Your task to perform on an android device: open app "NewsBreak: Local News & Alerts" Image 0: 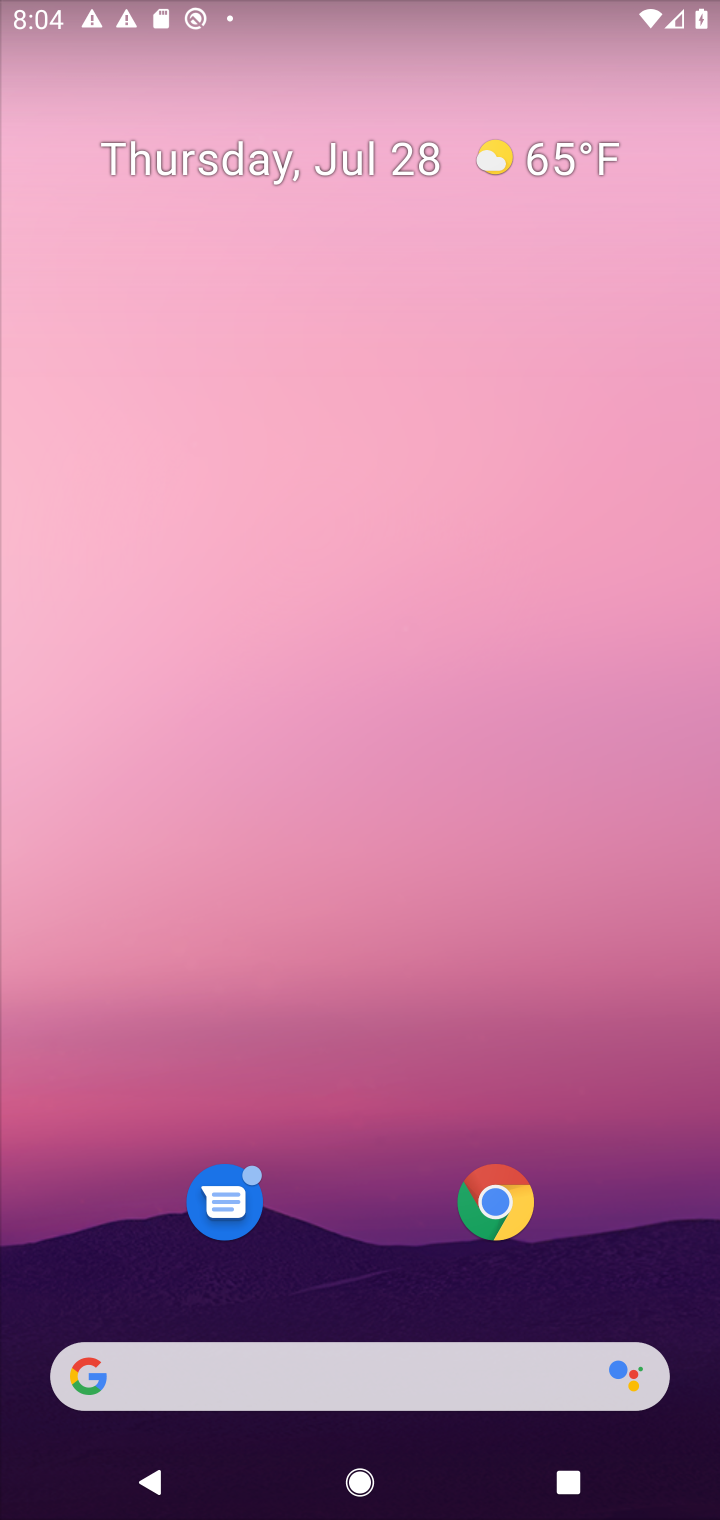
Step 0: click (449, 113)
Your task to perform on an android device: open app "NewsBreak: Local News & Alerts" Image 1: 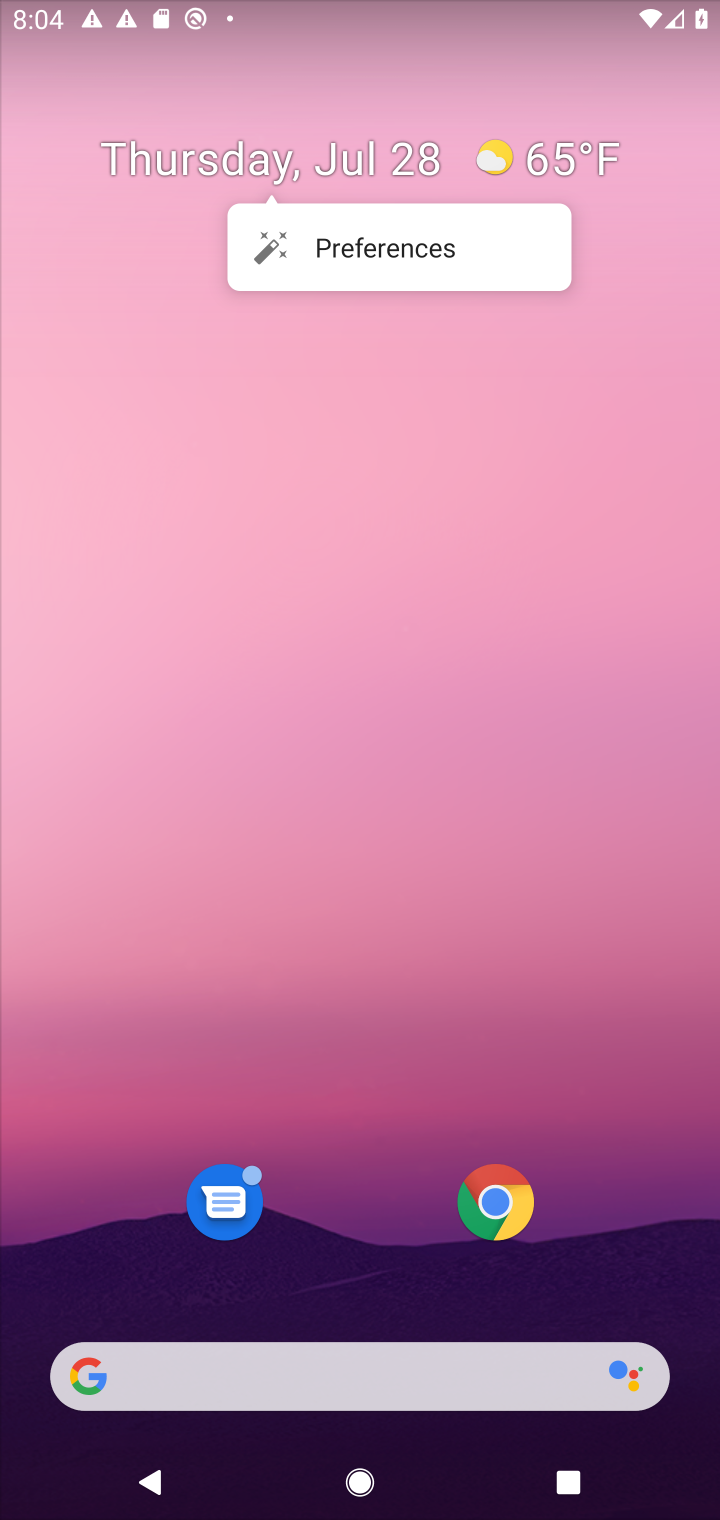
Step 1: click (360, 1017)
Your task to perform on an android device: open app "NewsBreak: Local News & Alerts" Image 2: 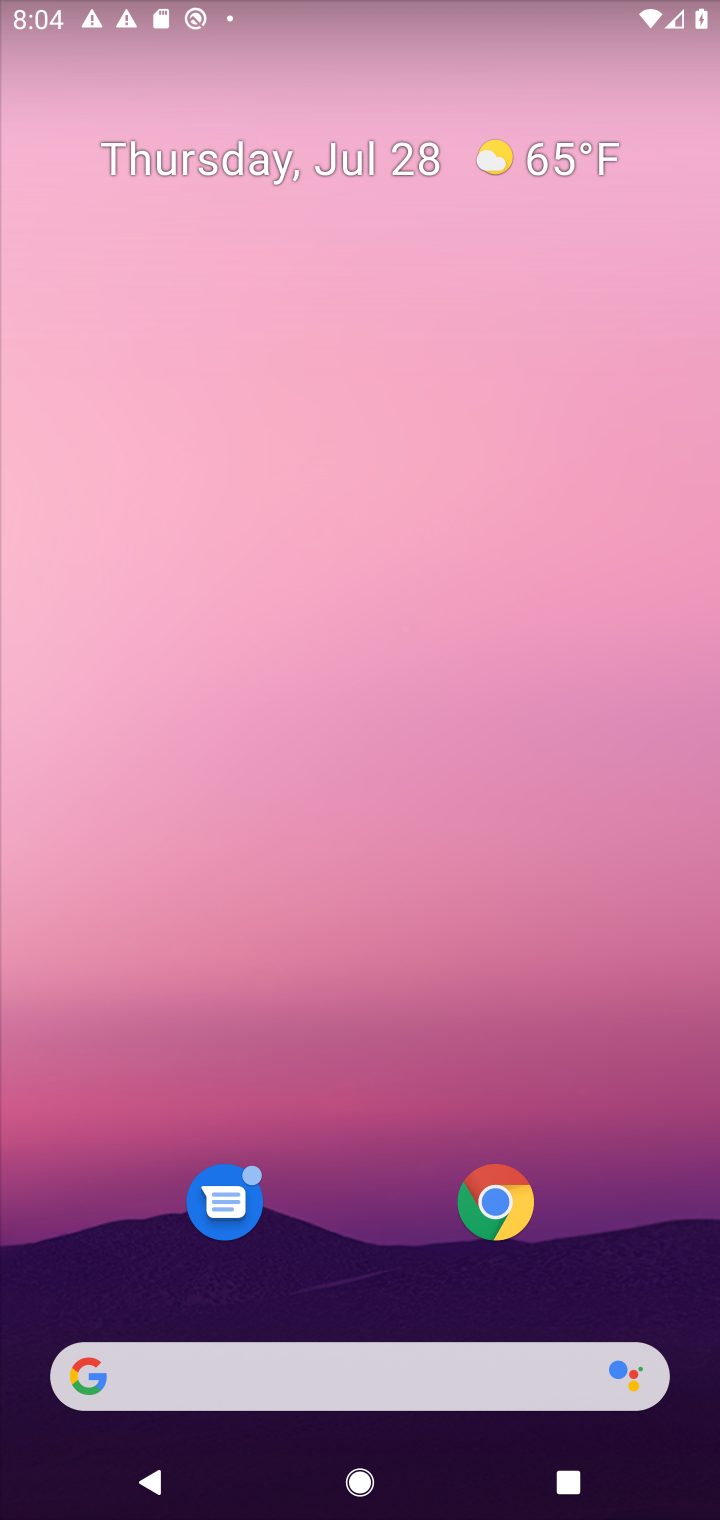
Step 2: drag from (367, 691) to (402, 2)
Your task to perform on an android device: open app "NewsBreak: Local News & Alerts" Image 3: 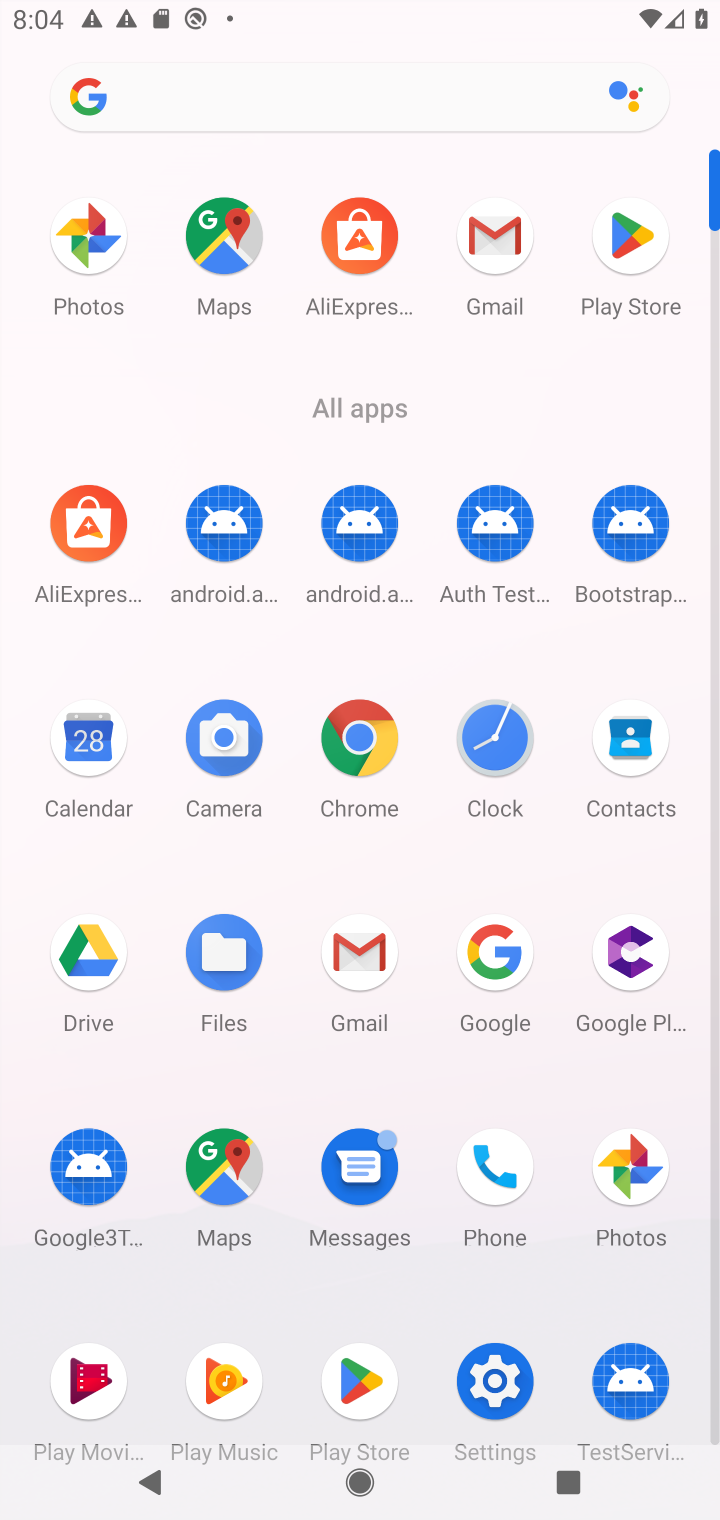
Step 3: click (349, 1376)
Your task to perform on an android device: open app "NewsBreak: Local News & Alerts" Image 4: 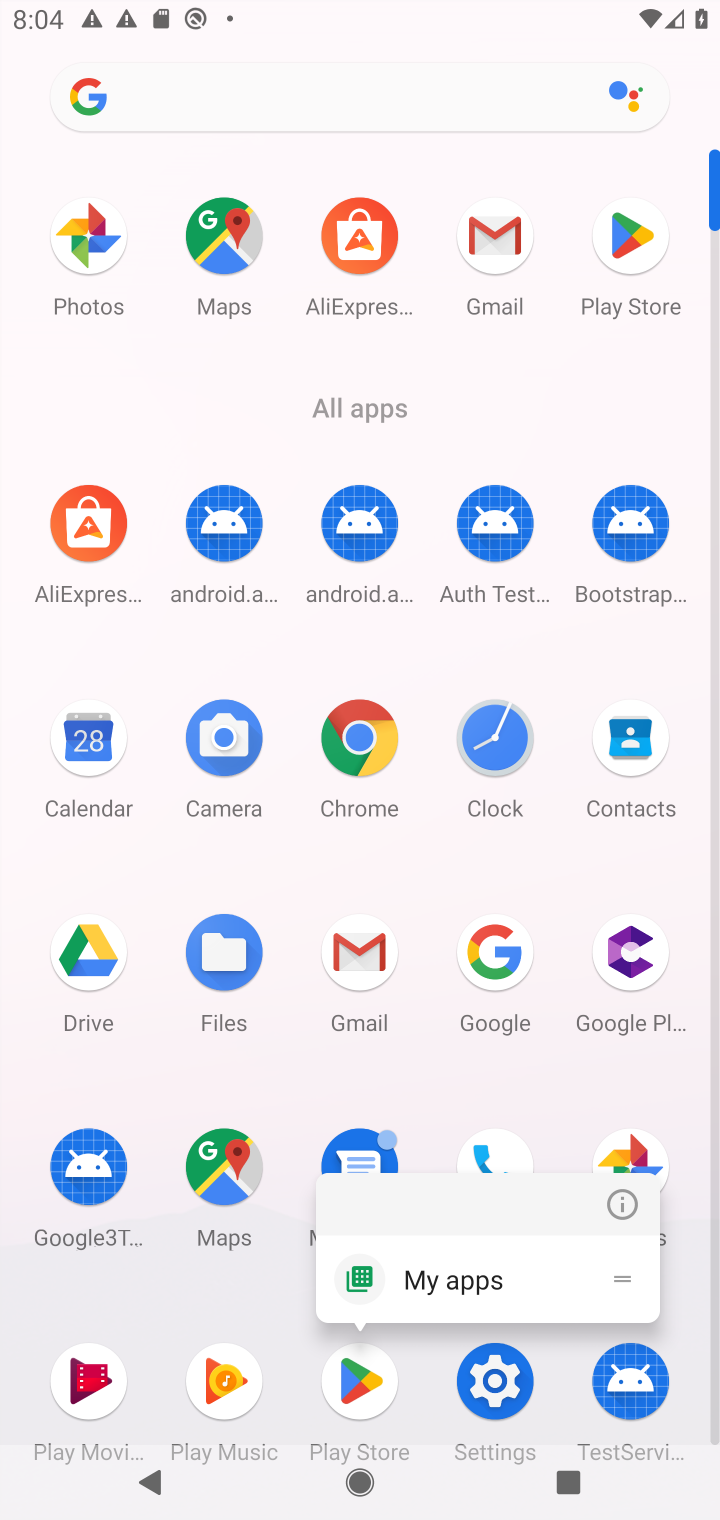
Step 4: click (355, 1372)
Your task to perform on an android device: open app "NewsBreak: Local News & Alerts" Image 5: 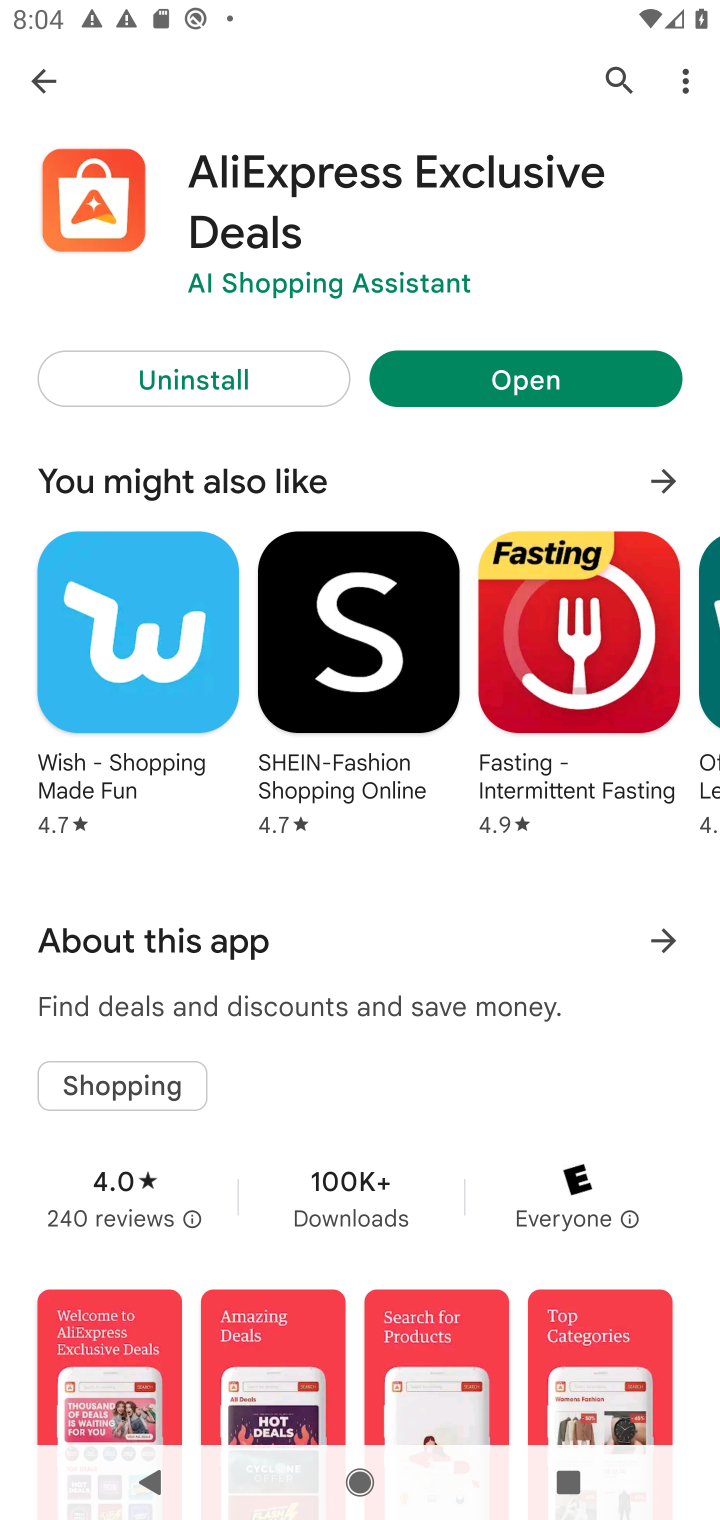
Step 5: click (38, 71)
Your task to perform on an android device: open app "NewsBreak: Local News & Alerts" Image 6: 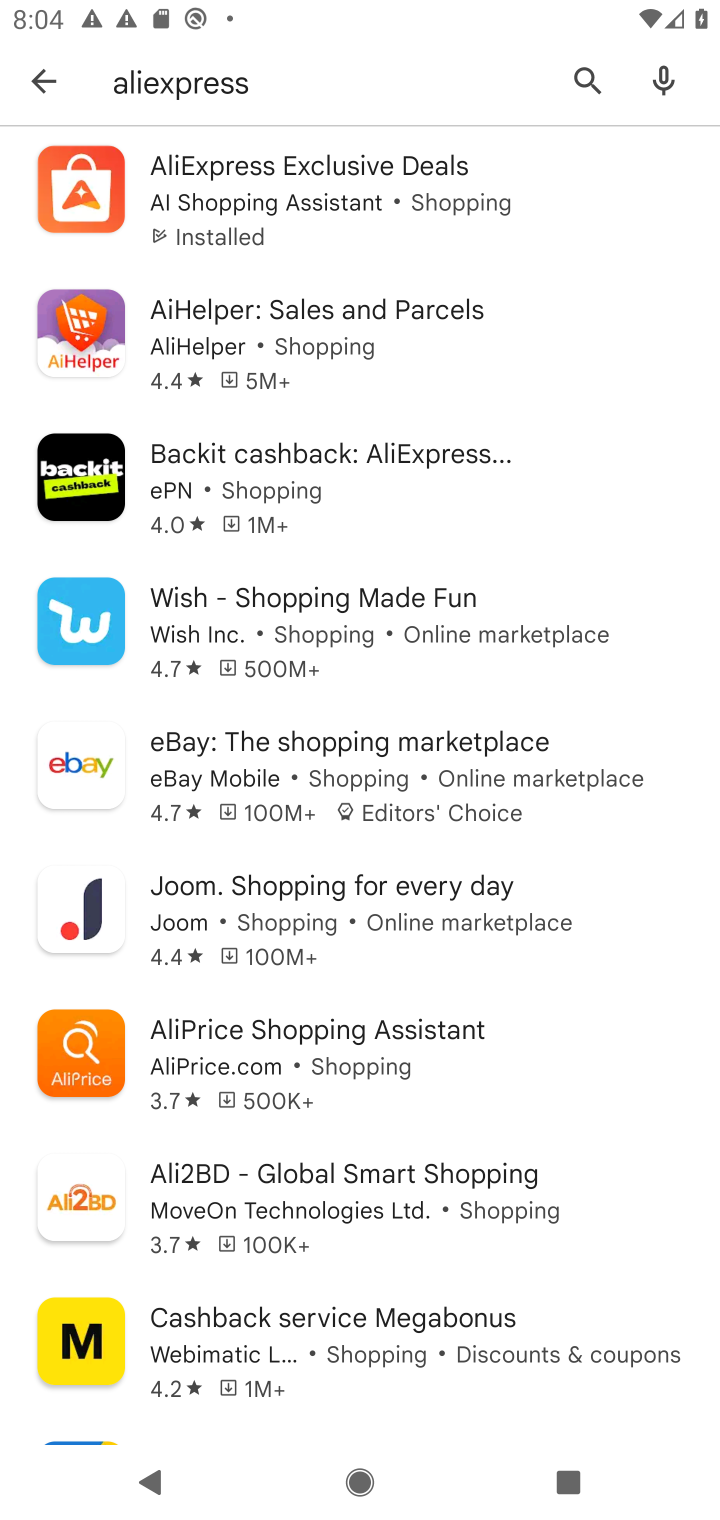
Step 6: click (45, 69)
Your task to perform on an android device: open app "NewsBreak: Local News & Alerts" Image 7: 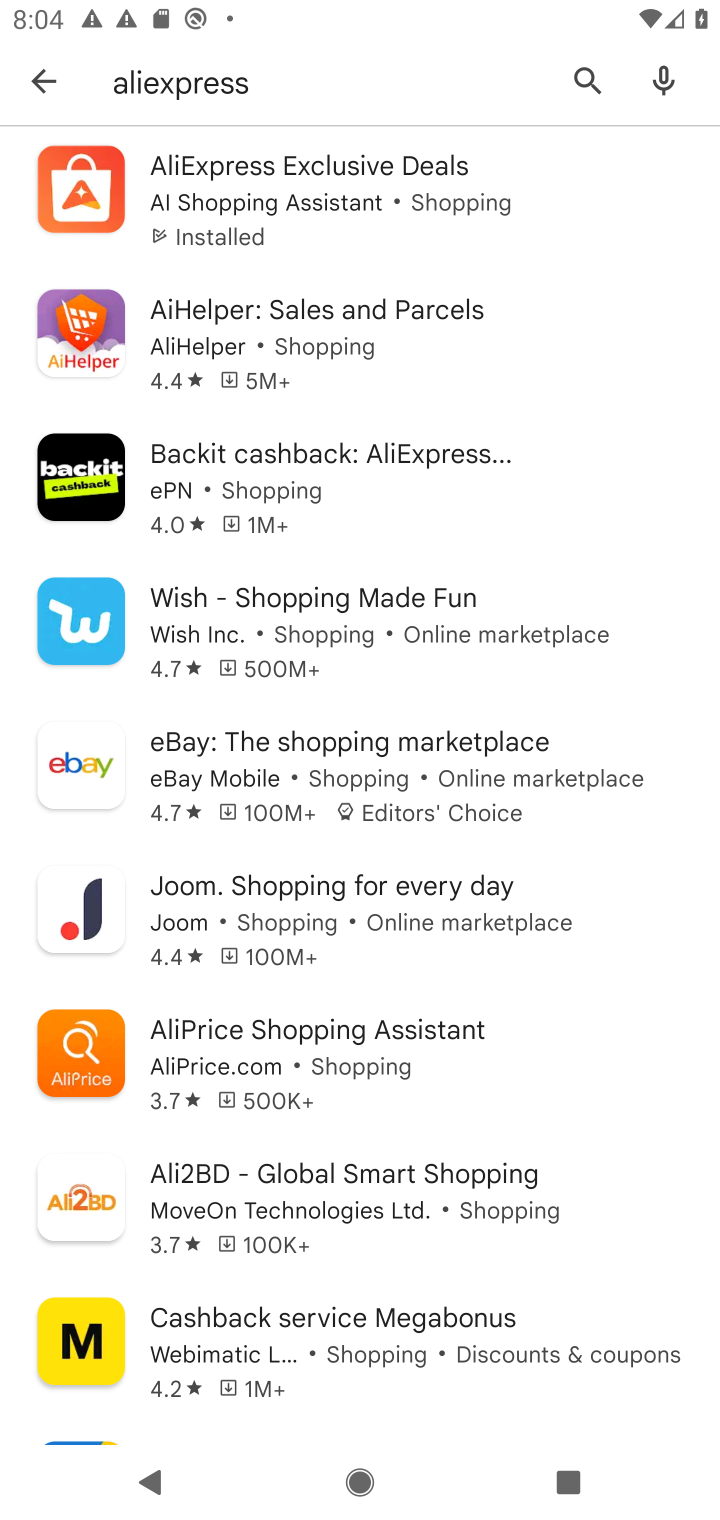
Step 7: click (43, 79)
Your task to perform on an android device: open app "NewsBreak: Local News & Alerts" Image 8: 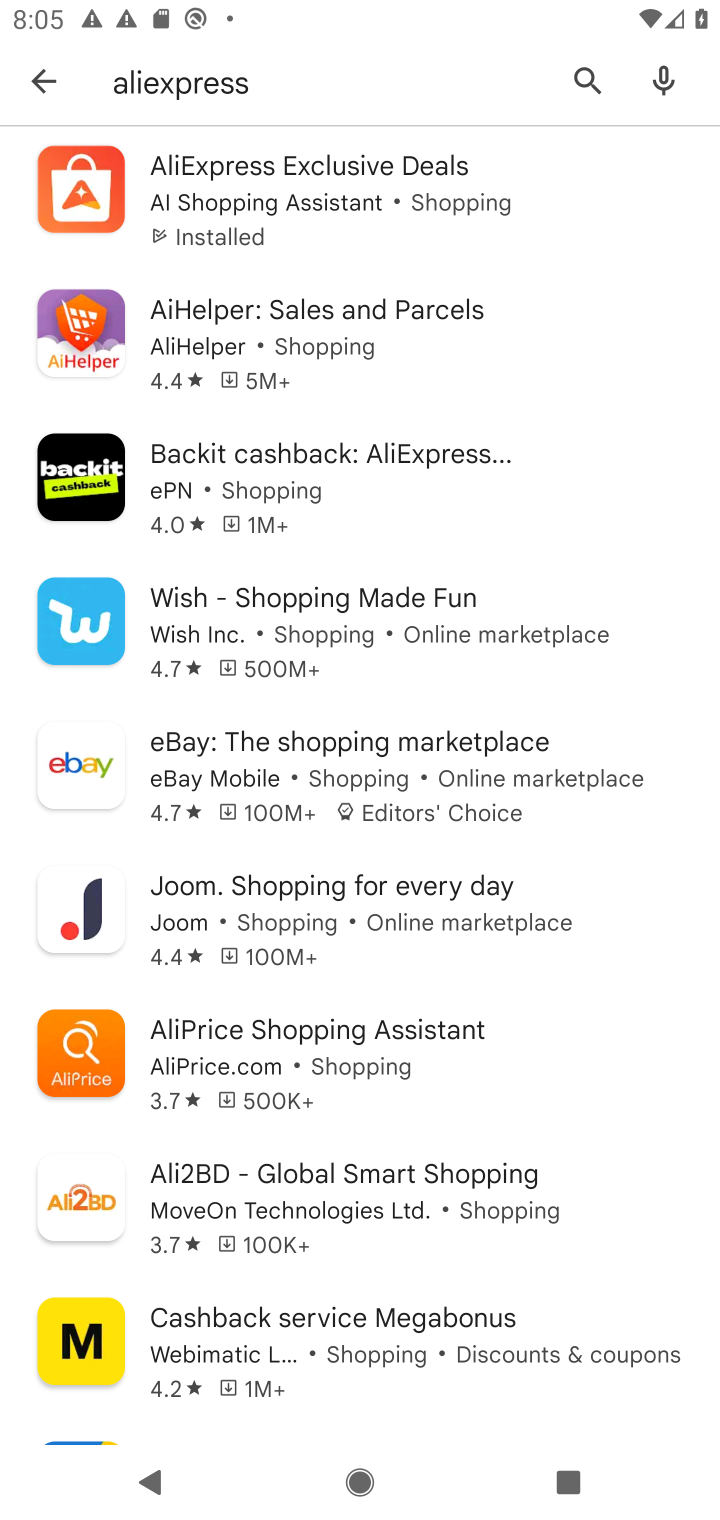
Step 8: click (591, 79)
Your task to perform on an android device: open app "NewsBreak: Local News & Alerts" Image 9: 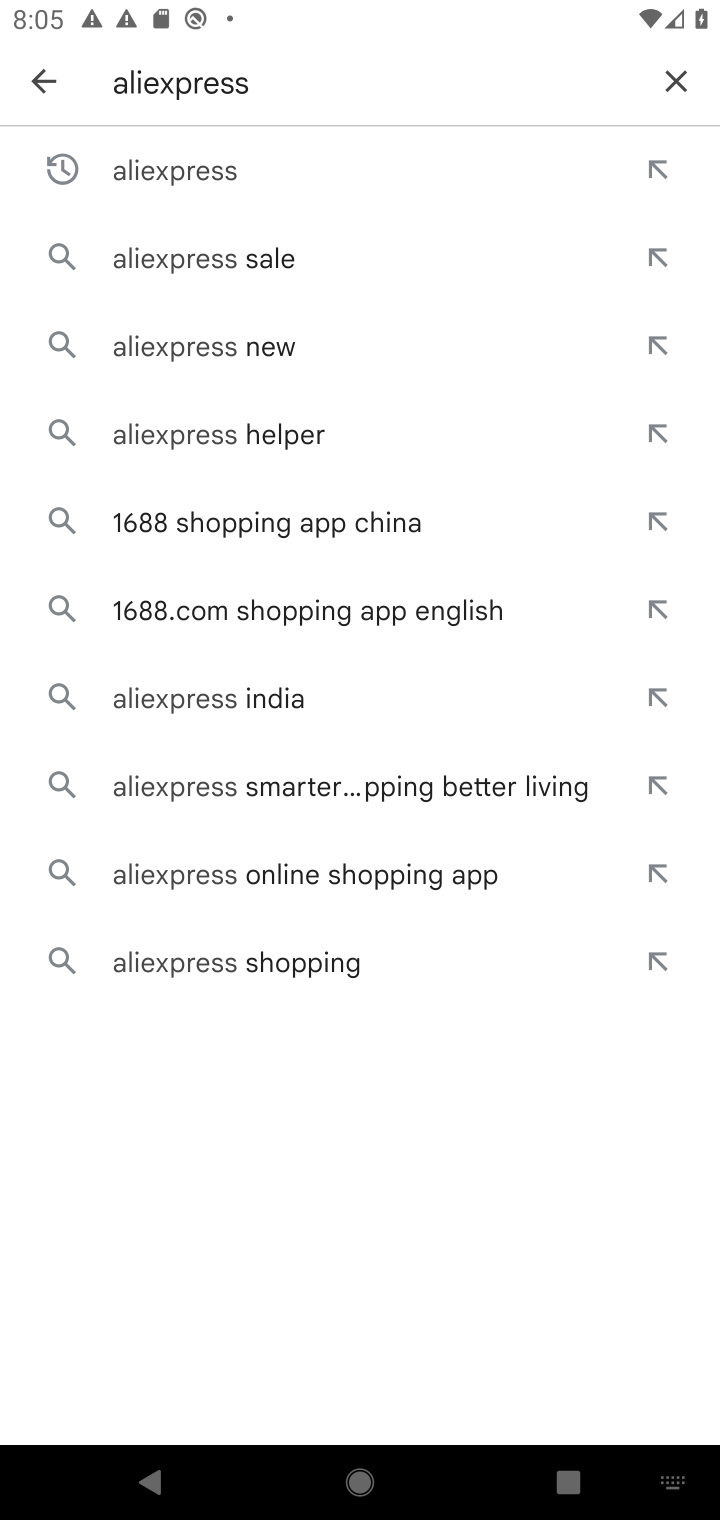
Step 9: click (674, 77)
Your task to perform on an android device: open app "NewsBreak: Local News & Alerts" Image 10: 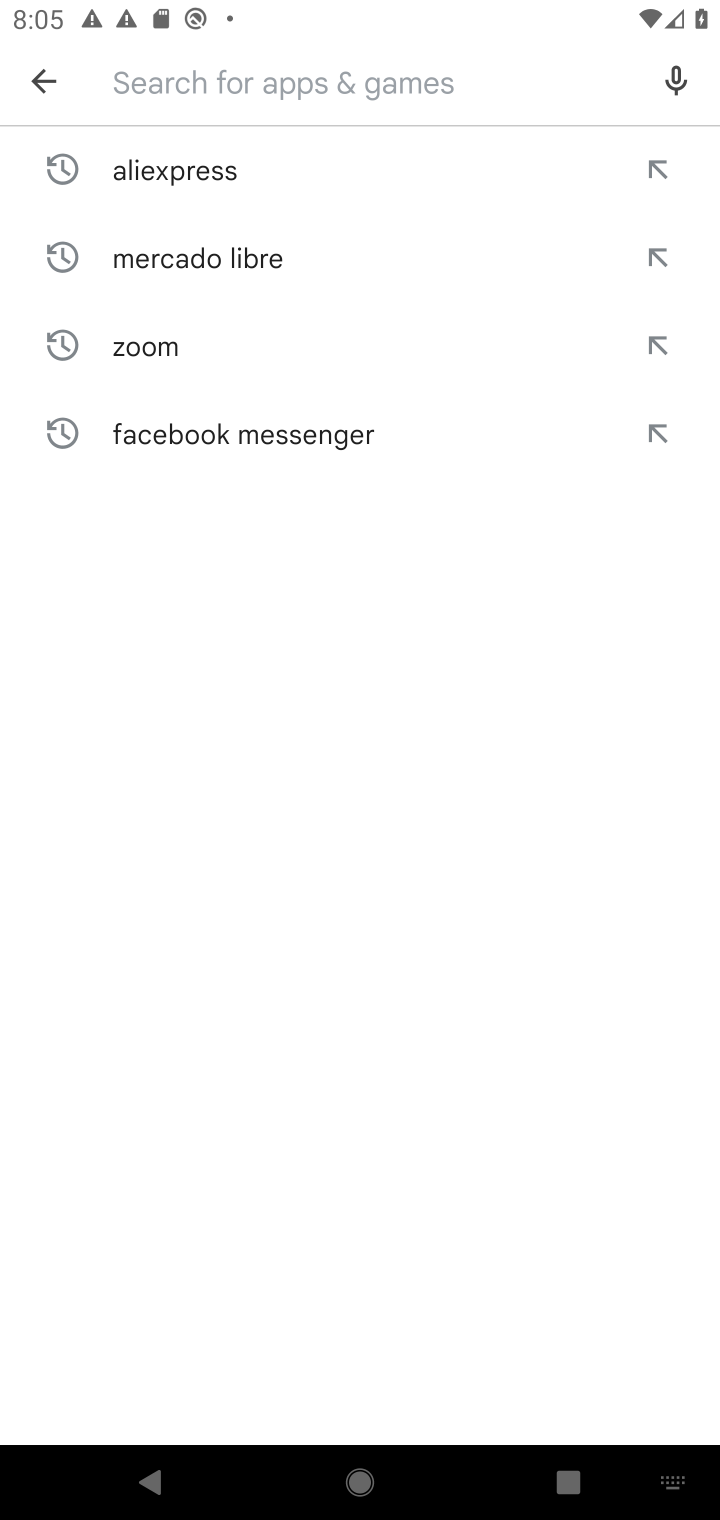
Step 10: type "NewsBreak: Local News & Alerts"
Your task to perform on an android device: open app "NewsBreak: Local News & Alerts" Image 11: 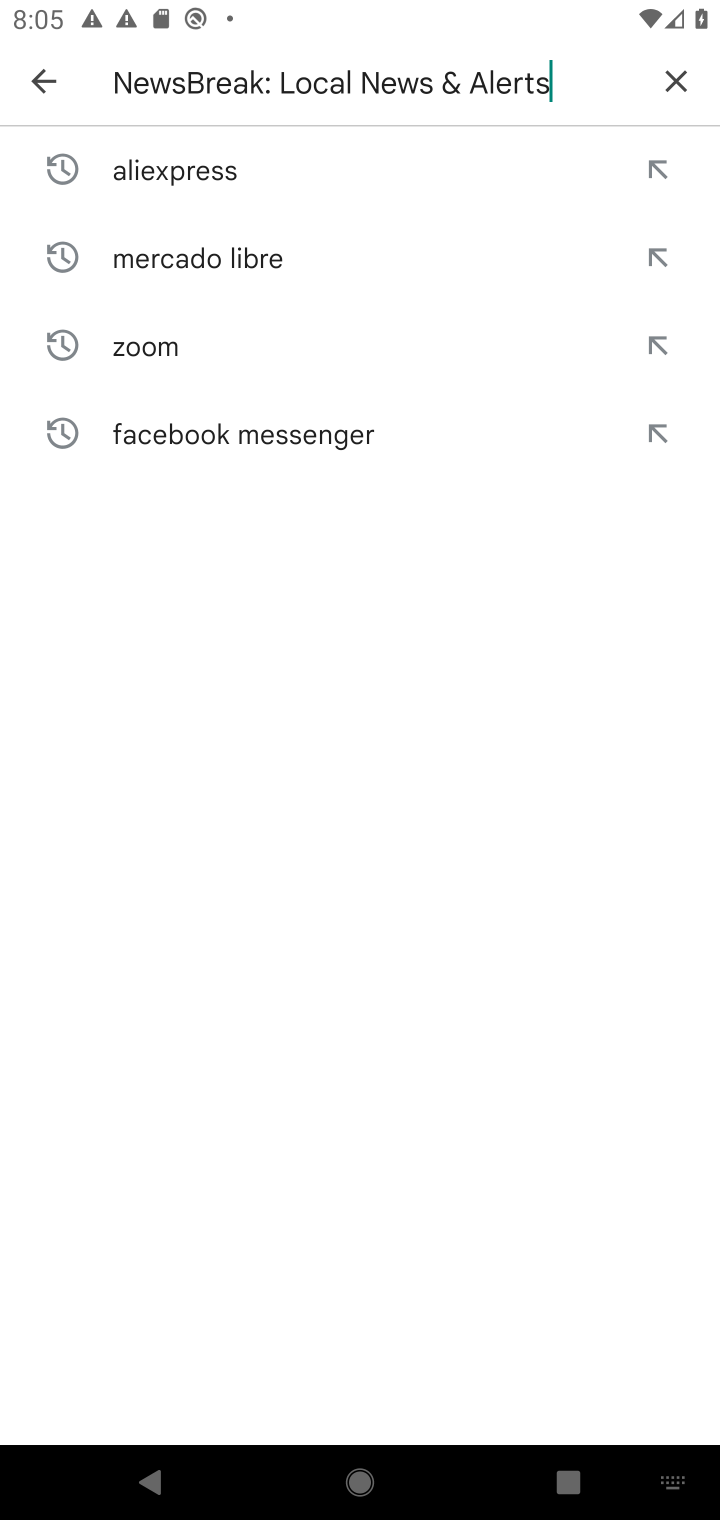
Step 11: type ""
Your task to perform on an android device: open app "NewsBreak: Local News & Alerts" Image 12: 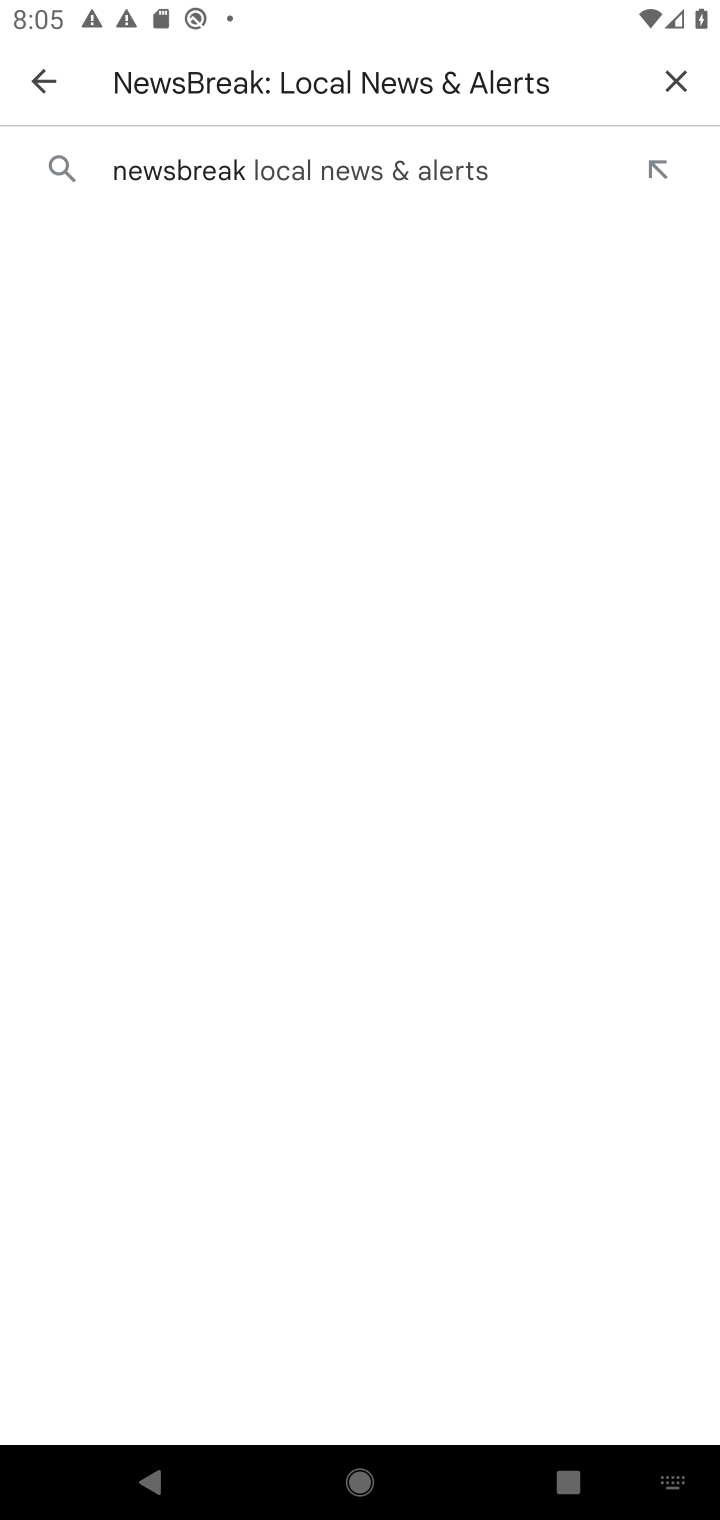
Step 12: click (208, 164)
Your task to perform on an android device: open app "NewsBreak: Local News & Alerts" Image 13: 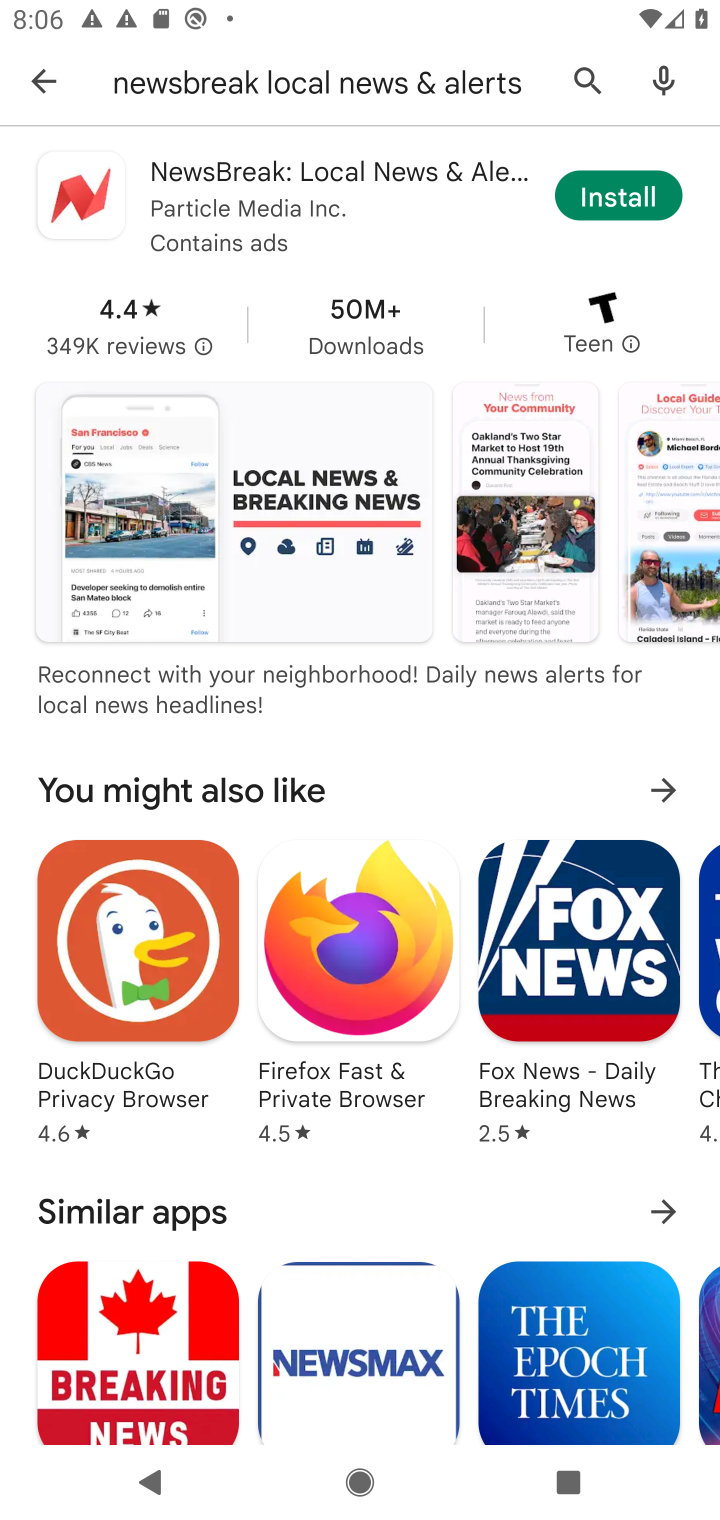
Step 13: task complete